Your task to perform on an android device: Go to Wikipedia Image 0: 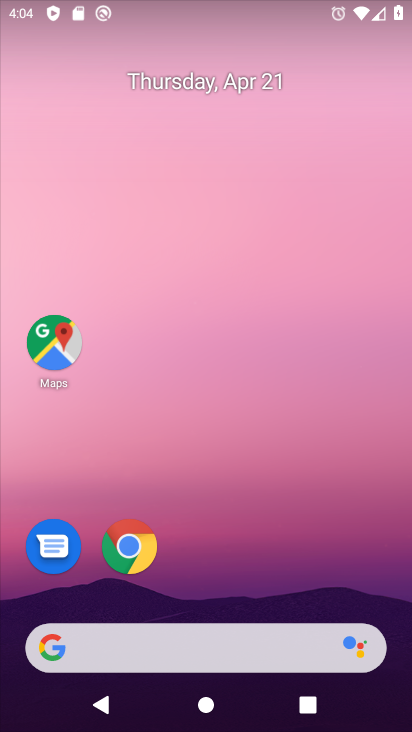
Step 0: drag from (282, 599) to (325, 136)
Your task to perform on an android device: Go to Wikipedia Image 1: 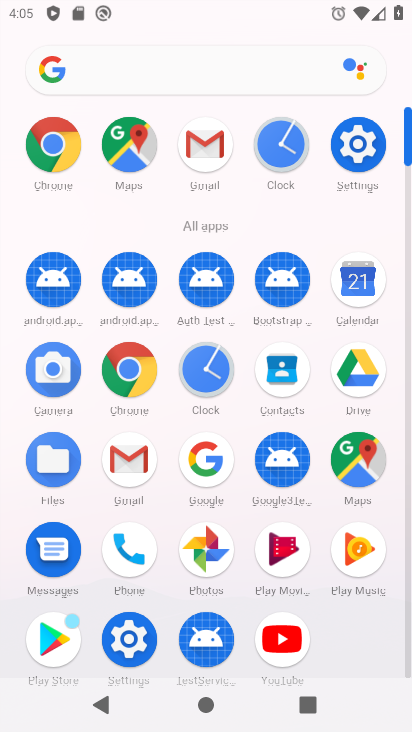
Step 1: click (118, 365)
Your task to perform on an android device: Go to Wikipedia Image 2: 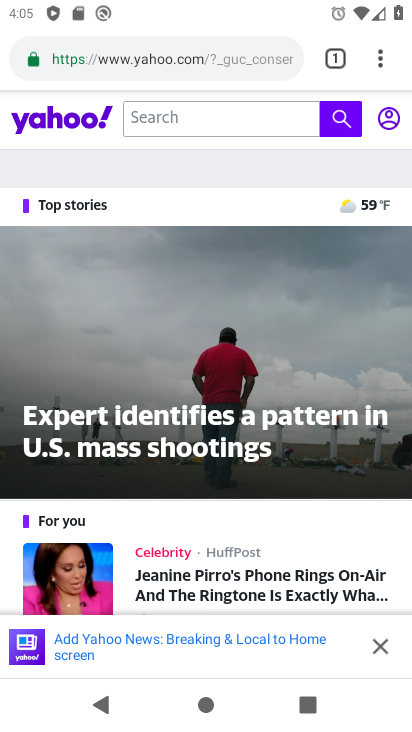
Step 2: click (216, 57)
Your task to perform on an android device: Go to Wikipedia Image 3: 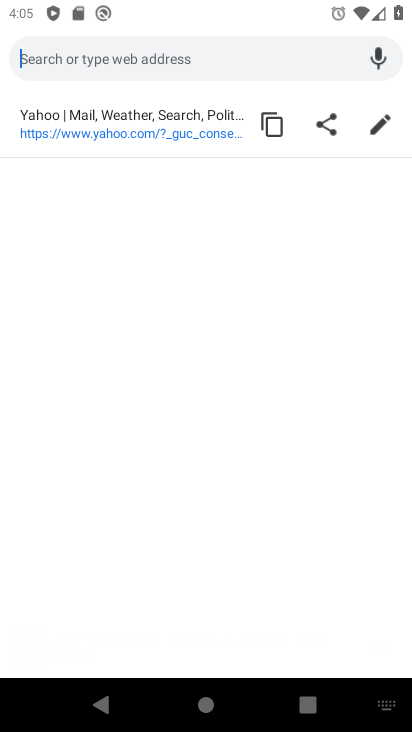
Step 3: type "wikipedia"
Your task to perform on an android device: Go to Wikipedia Image 4: 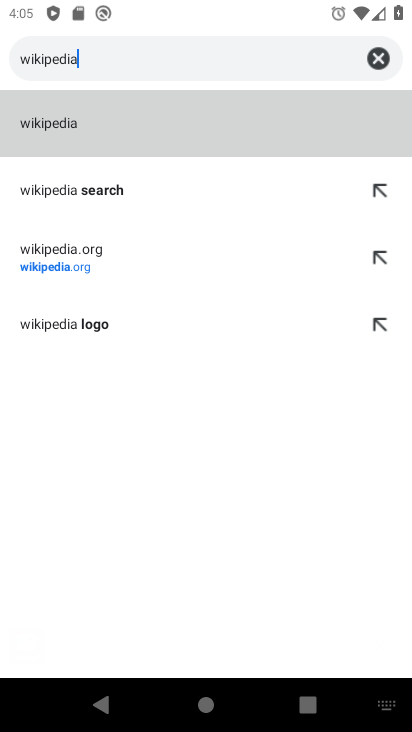
Step 4: click (44, 261)
Your task to perform on an android device: Go to Wikipedia Image 5: 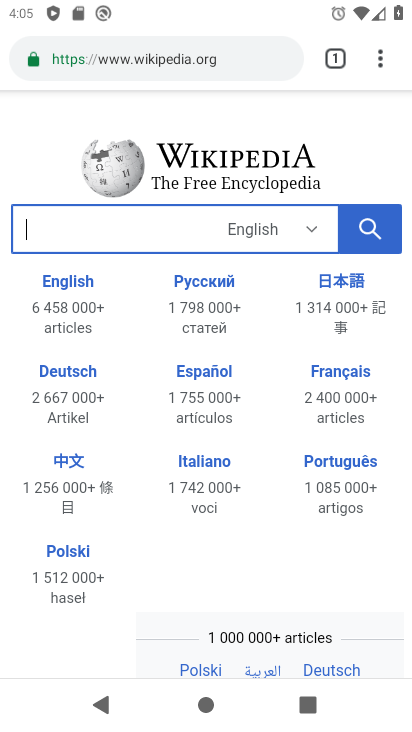
Step 5: task complete